Your task to perform on an android device: Go to notification settings Image 0: 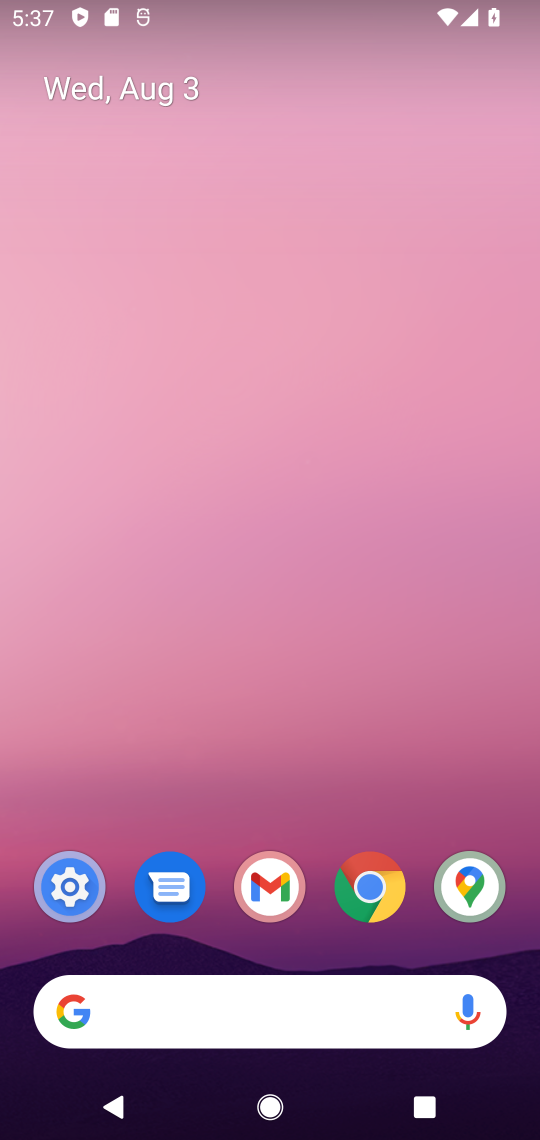
Step 0: drag from (270, 965) to (162, 25)
Your task to perform on an android device: Go to notification settings Image 1: 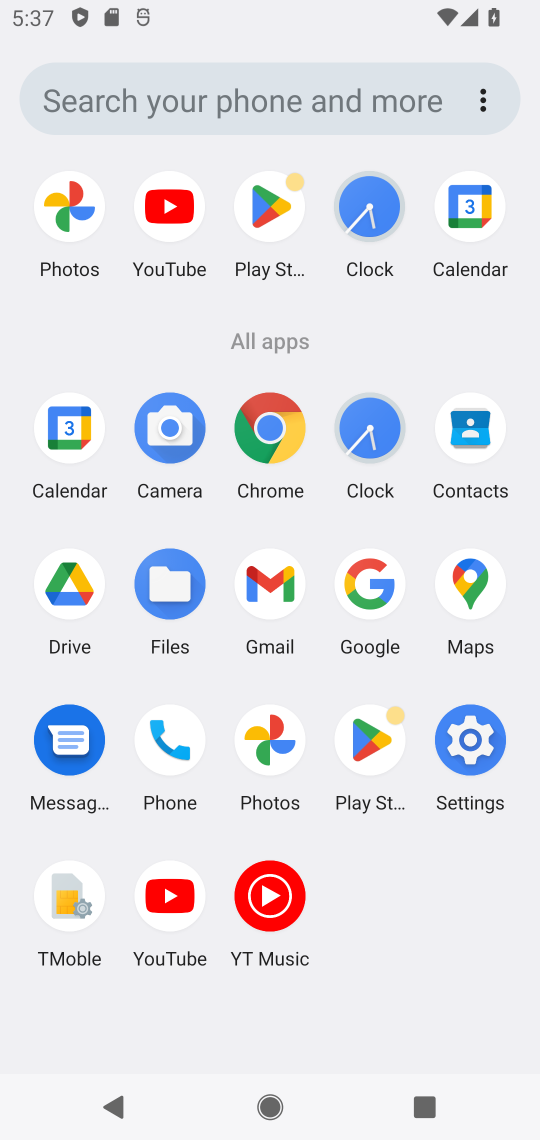
Step 1: click (486, 746)
Your task to perform on an android device: Go to notification settings Image 2: 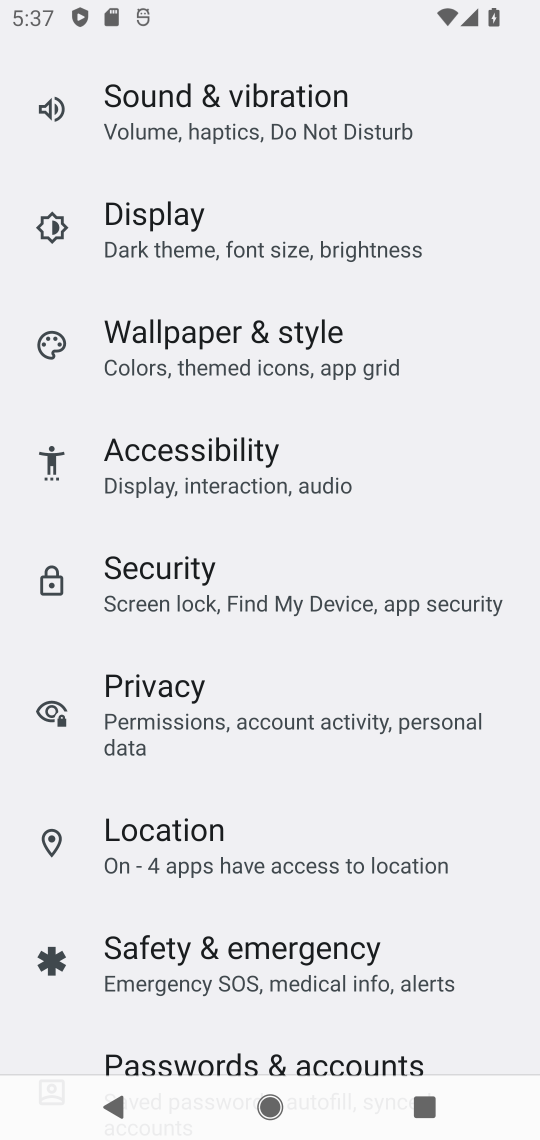
Step 2: drag from (271, 459) to (283, 861)
Your task to perform on an android device: Go to notification settings Image 3: 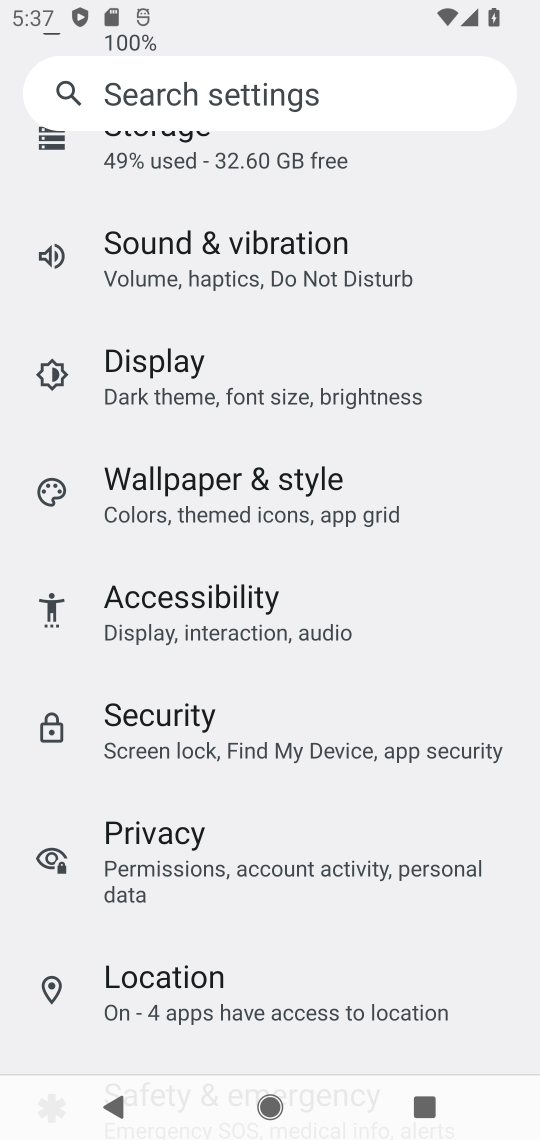
Step 3: drag from (203, 254) to (162, 759)
Your task to perform on an android device: Go to notification settings Image 4: 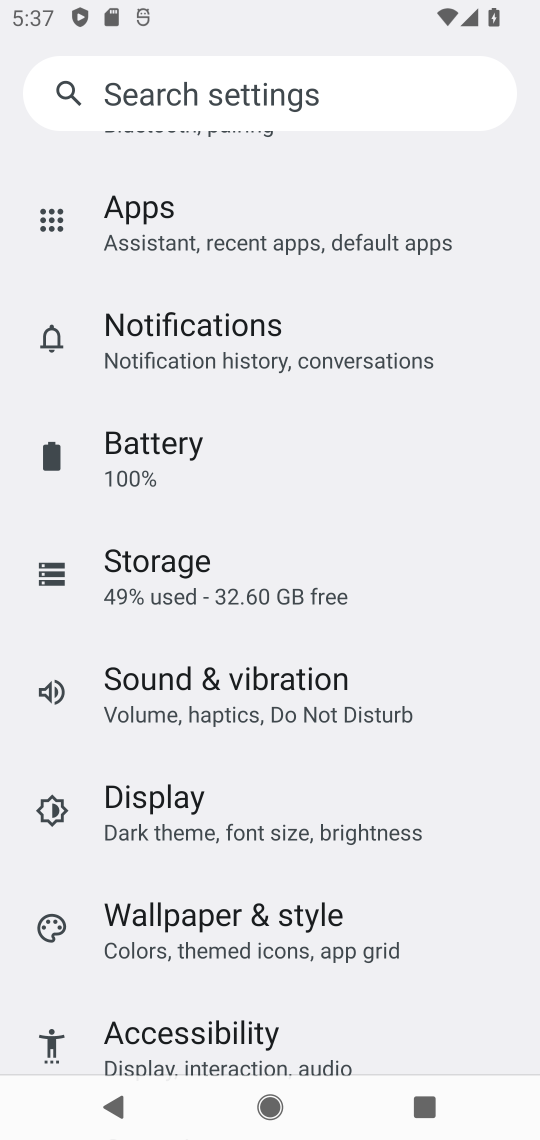
Step 4: drag from (261, 237) to (207, 858)
Your task to perform on an android device: Go to notification settings Image 5: 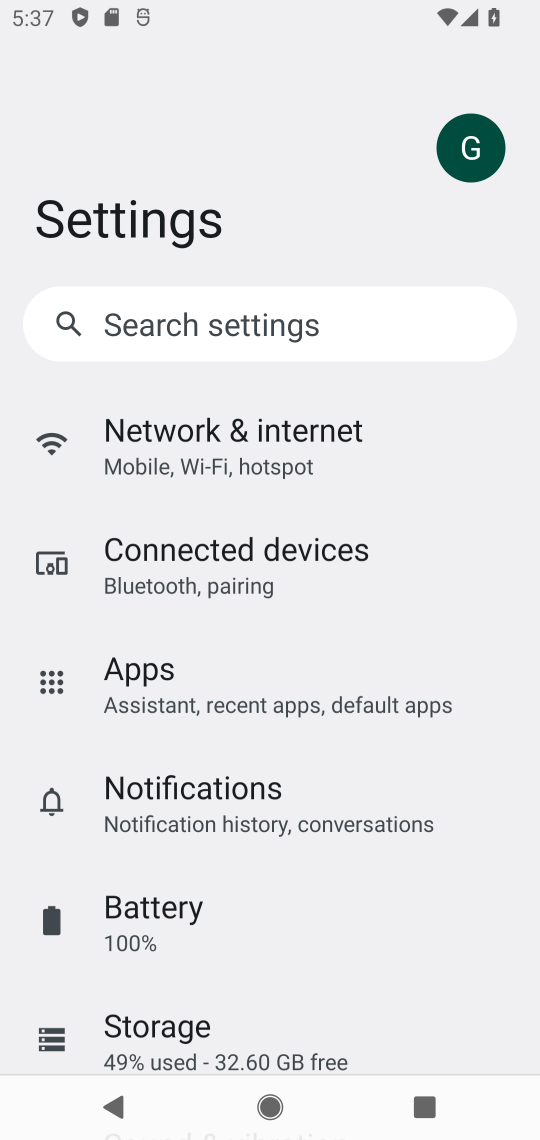
Step 5: click (202, 461)
Your task to perform on an android device: Go to notification settings Image 6: 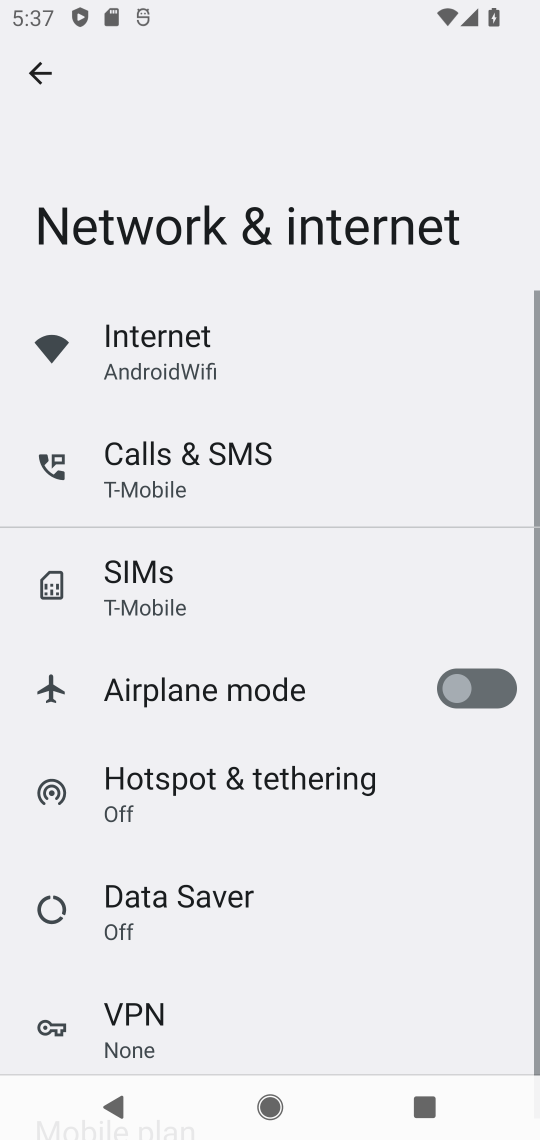
Step 6: task complete